Your task to perform on an android device: Search for the new Nintendo switch on Walmart. Image 0: 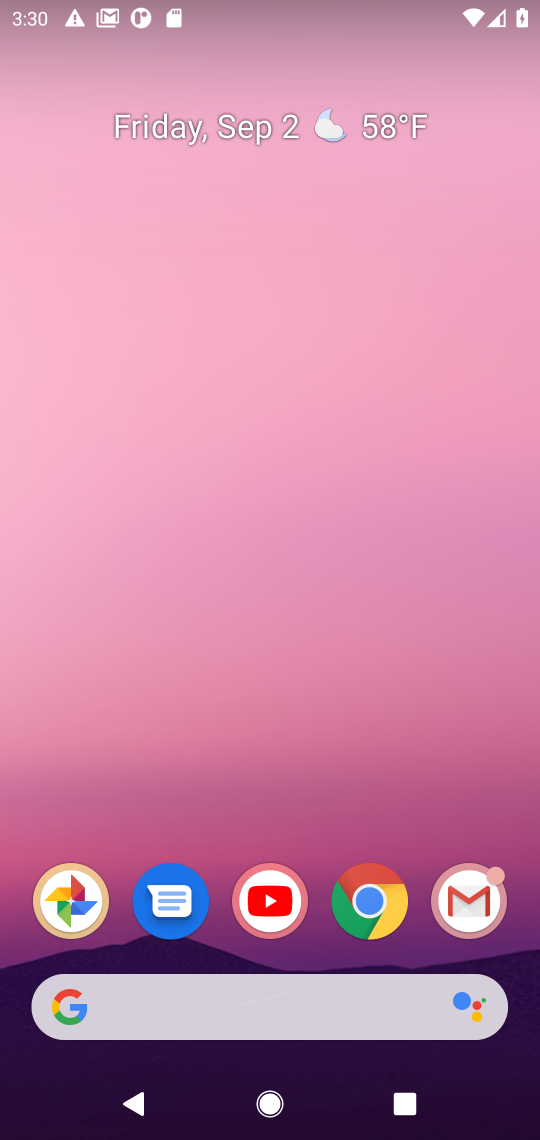
Step 0: drag from (299, 545) to (441, 34)
Your task to perform on an android device: Search for the new Nintendo switch on Walmart. Image 1: 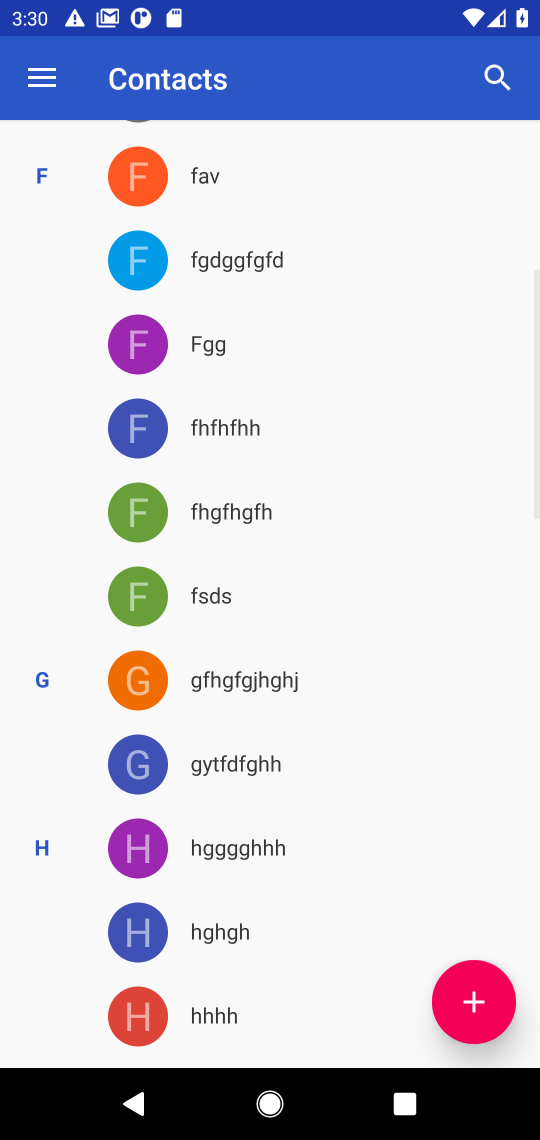
Step 1: press home button
Your task to perform on an android device: Search for the new Nintendo switch on Walmart. Image 2: 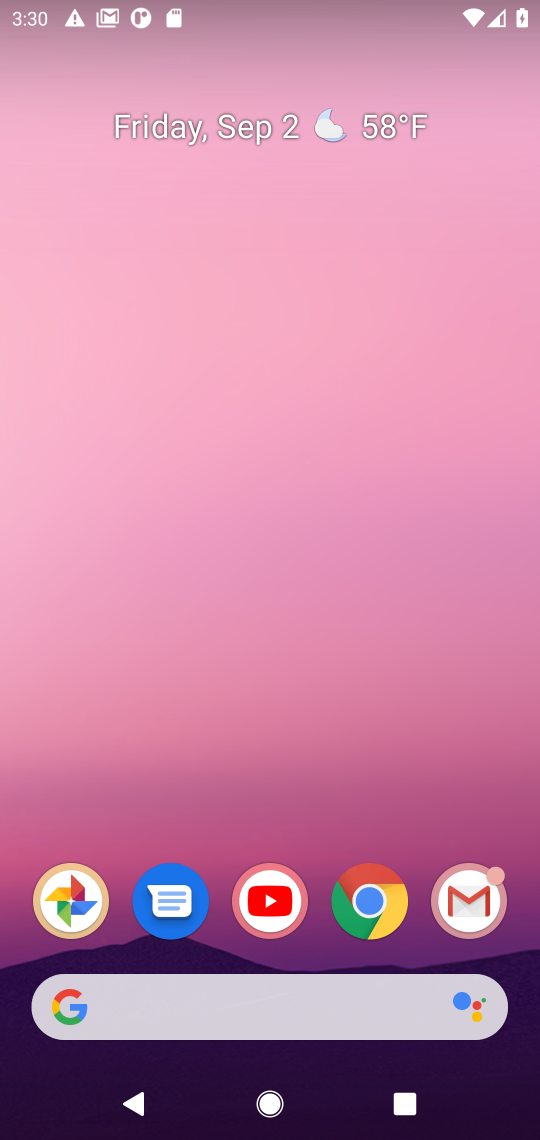
Step 2: drag from (297, 797) to (300, 81)
Your task to perform on an android device: Search for the new Nintendo switch on Walmart. Image 3: 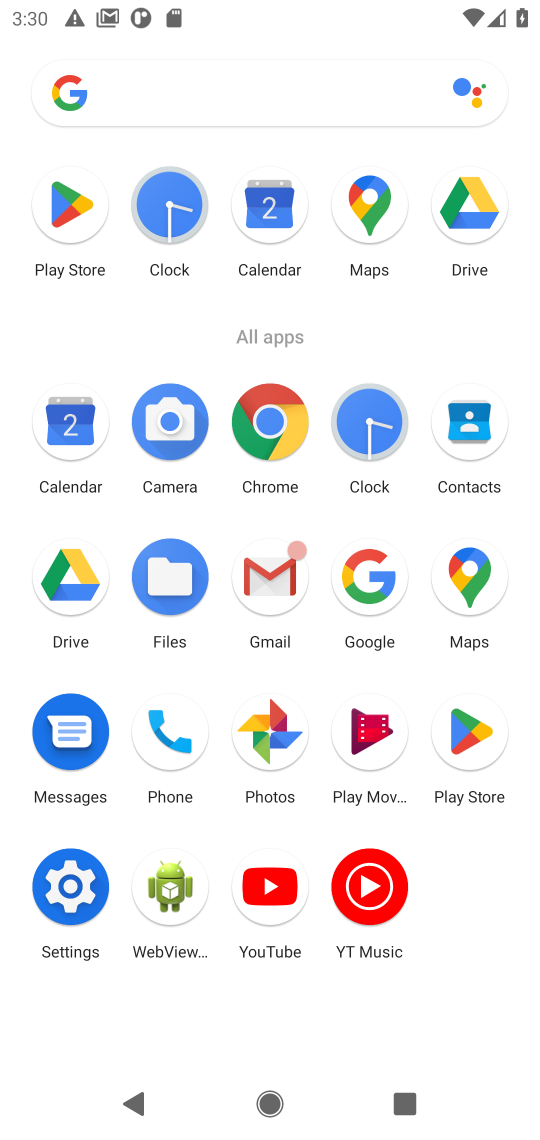
Step 3: click (270, 433)
Your task to perform on an android device: Search for the new Nintendo switch on Walmart. Image 4: 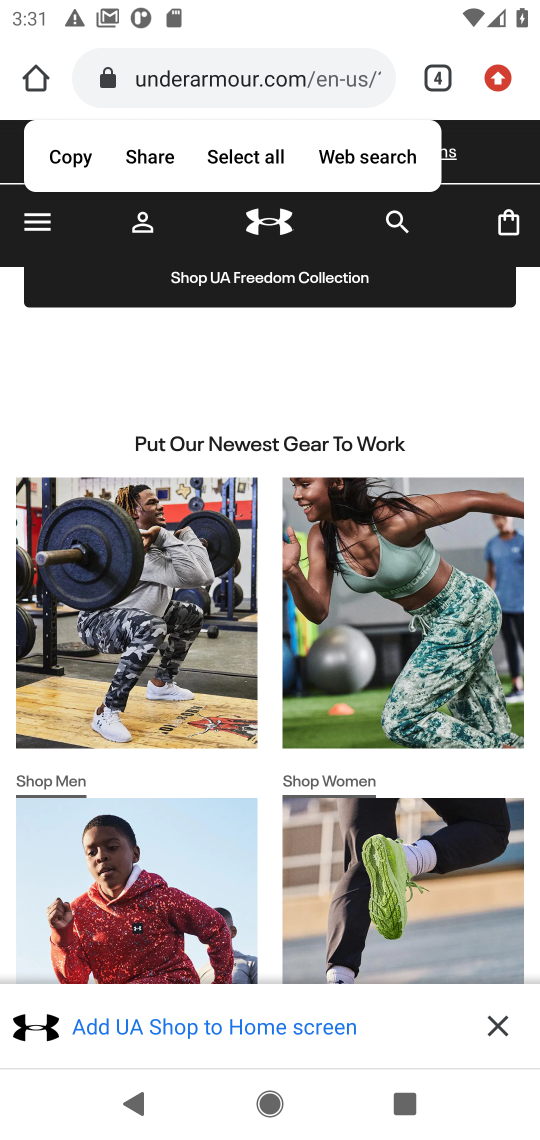
Step 4: task complete